Your task to perform on an android device: turn on bluetooth scan Image 0: 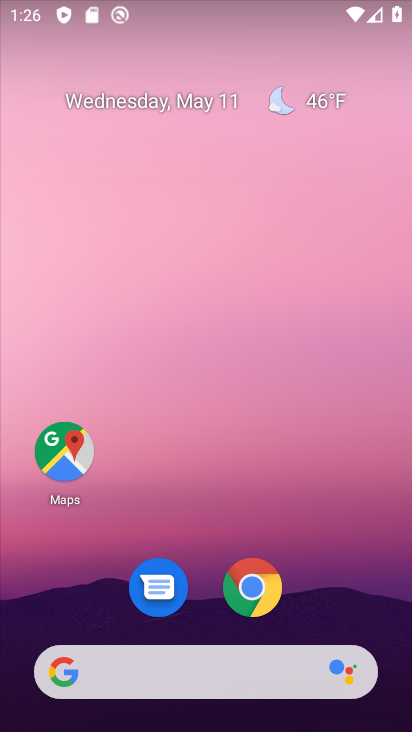
Step 0: press home button
Your task to perform on an android device: turn on bluetooth scan Image 1: 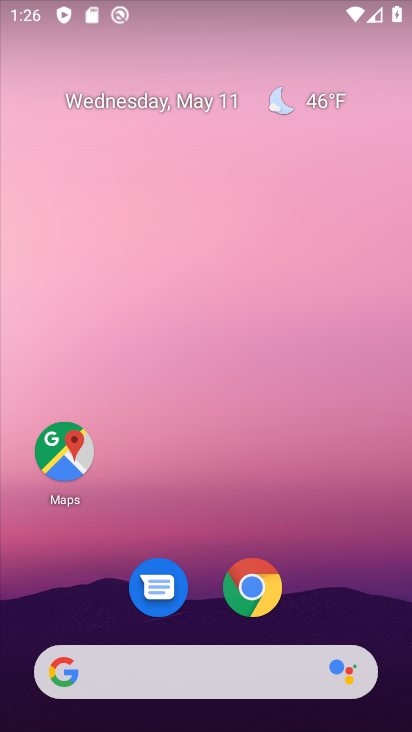
Step 1: press home button
Your task to perform on an android device: turn on bluetooth scan Image 2: 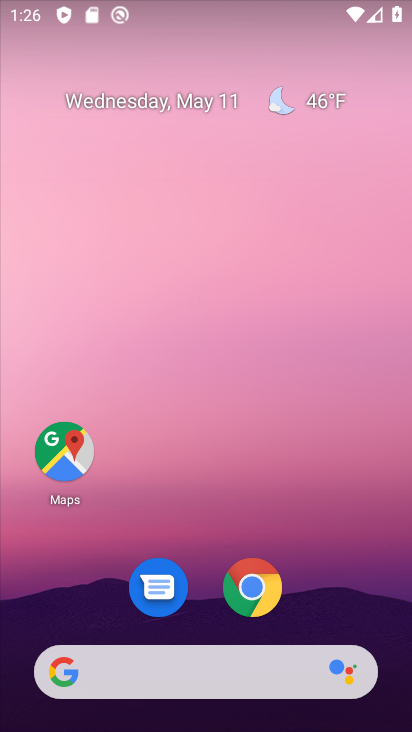
Step 2: drag from (339, 599) to (338, 32)
Your task to perform on an android device: turn on bluetooth scan Image 3: 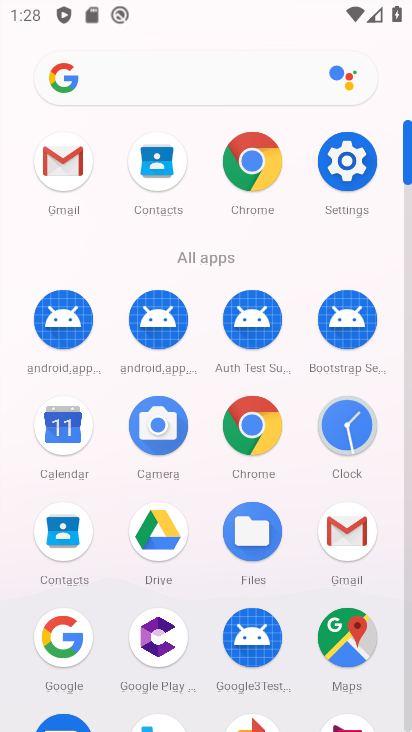
Step 3: click (340, 157)
Your task to perform on an android device: turn on bluetooth scan Image 4: 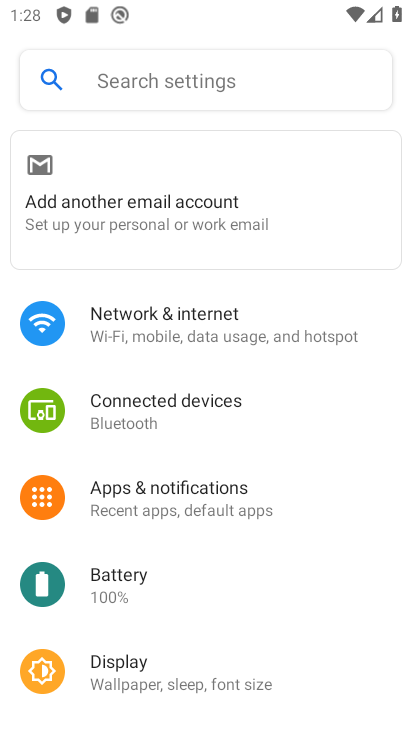
Step 4: drag from (269, 552) to (255, 147)
Your task to perform on an android device: turn on bluetooth scan Image 5: 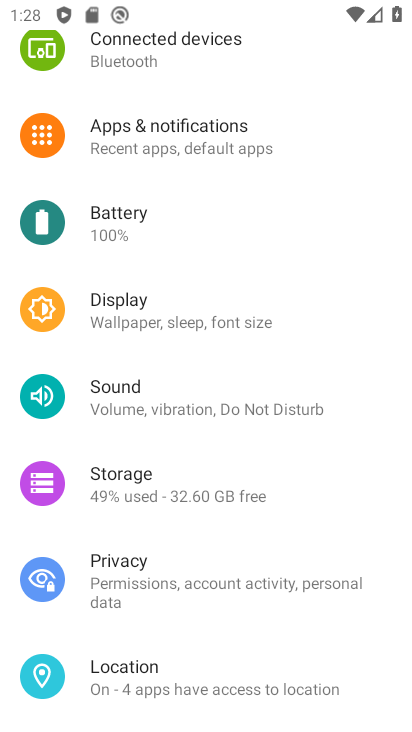
Step 5: drag from (204, 607) to (149, 236)
Your task to perform on an android device: turn on bluetooth scan Image 6: 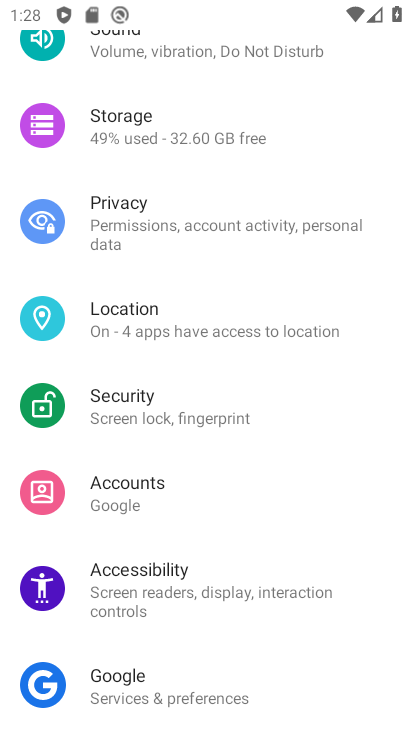
Step 6: click (159, 317)
Your task to perform on an android device: turn on bluetooth scan Image 7: 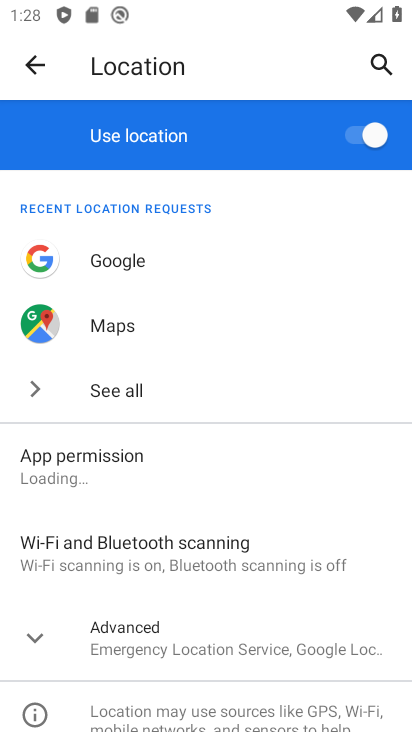
Step 7: click (145, 556)
Your task to perform on an android device: turn on bluetooth scan Image 8: 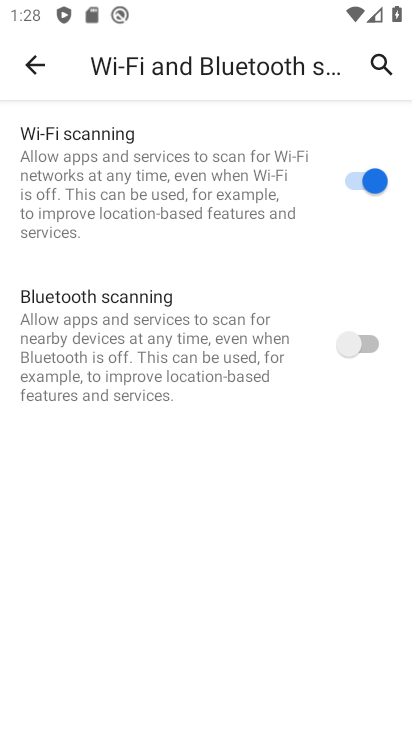
Step 8: task complete